Your task to perform on an android device: When is my next appointment? Image 0: 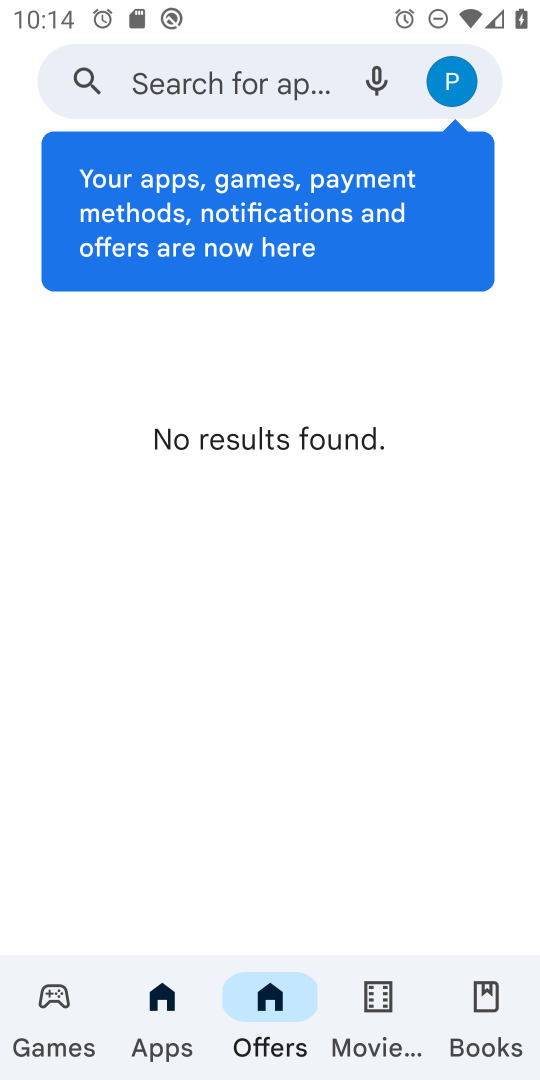
Step 0: press home button
Your task to perform on an android device: When is my next appointment? Image 1: 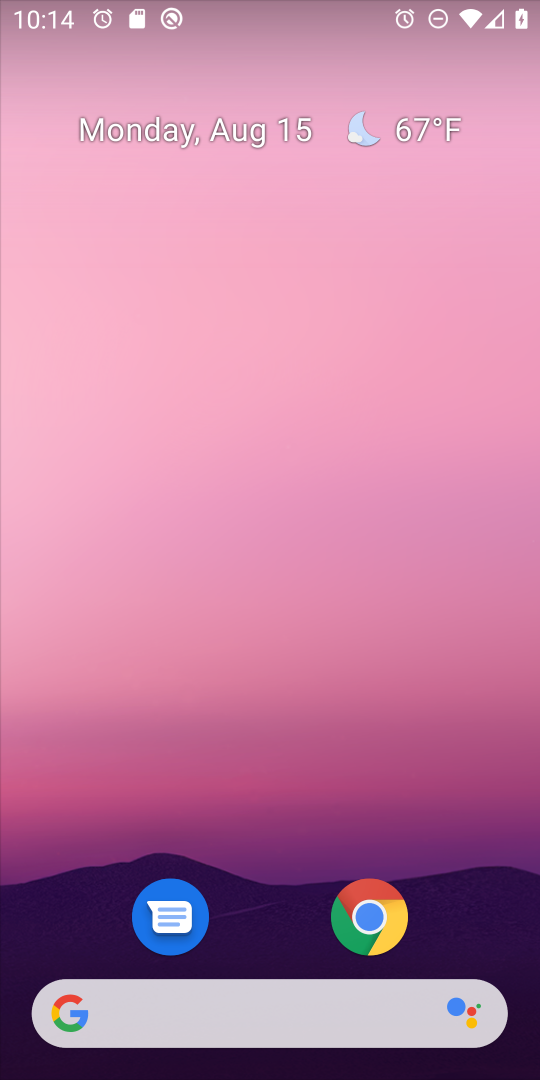
Step 1: drag from (313, 868) to (340, 1)
Your task to perform on an android device: When is my next appointment? Image 2: 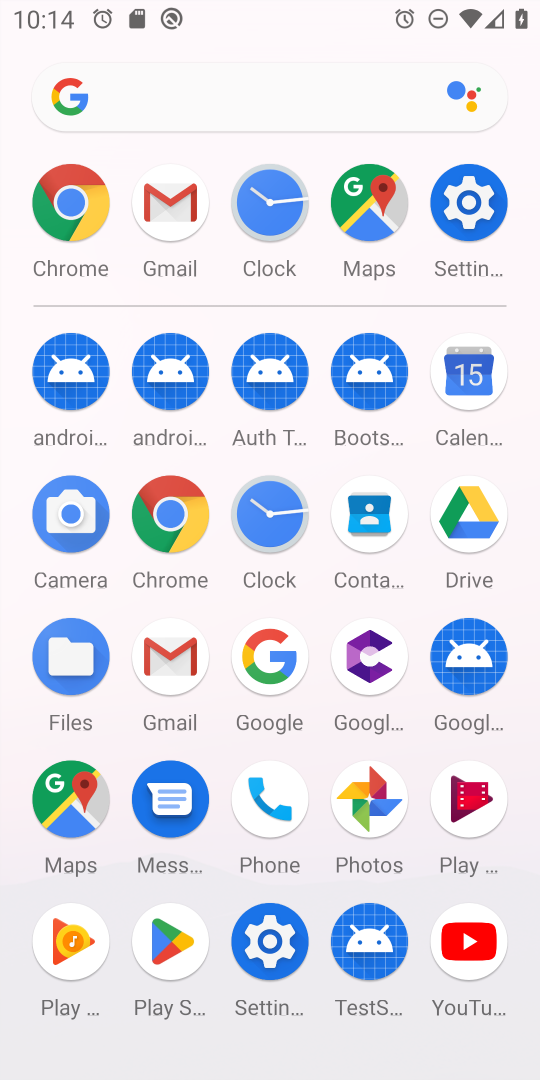
Step 2: click (475, 371)
Your task to perform on an android device: When is my next appointment? Image 3: 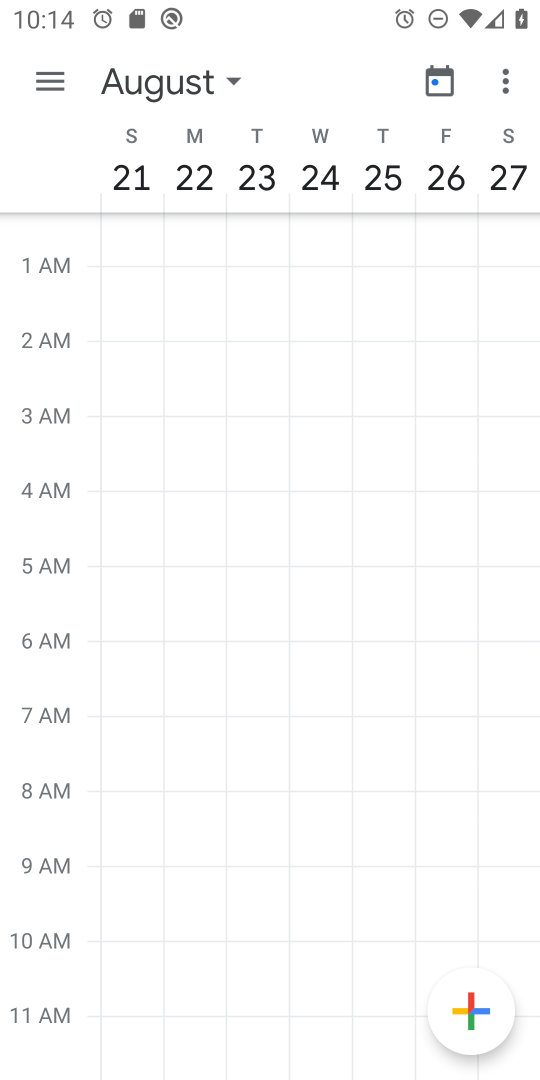
Step 3: drag from (188, 399) to (534, 455)
Your task to perform on an android device: When is my next appointment? Image 4: 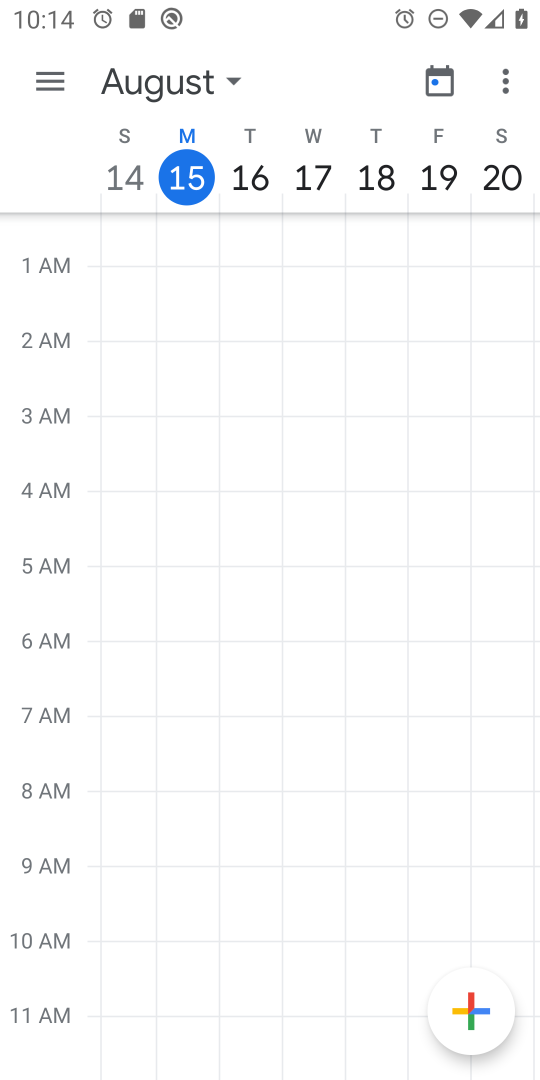
Step 4: drag from (178, 377) to (530, 441)
Your task to perform on an android device: When is my next appointment? Image 5: 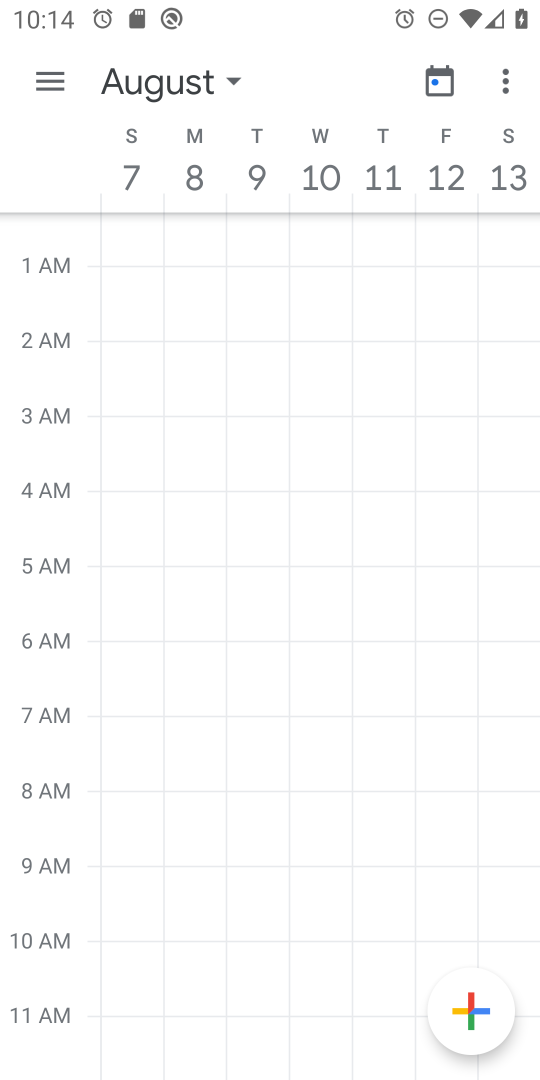
Step 5: drag from (479, 427) to (1, 357)
Your task to perform on an android device: When is my next appointment? Image 6: 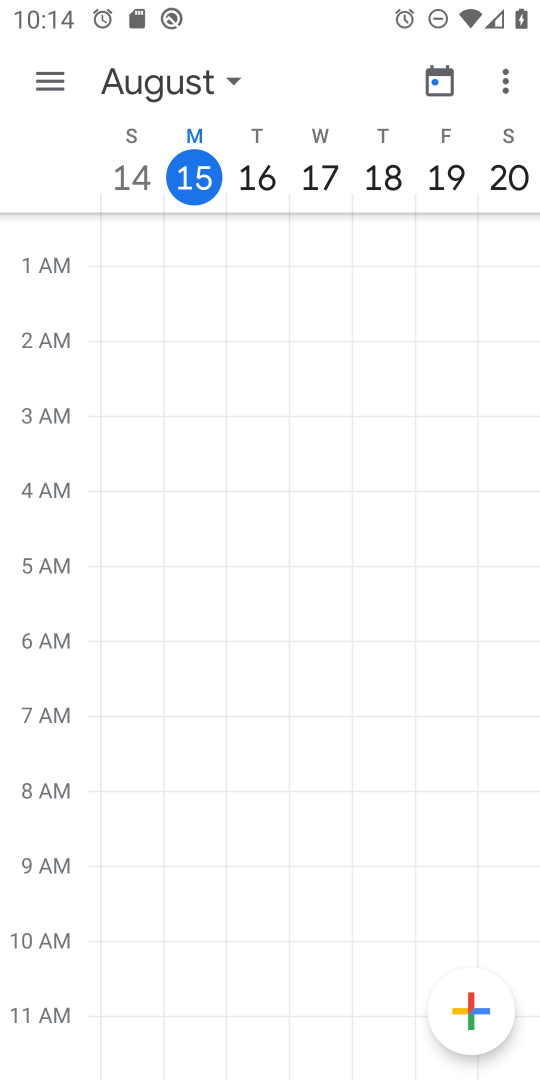
Step 6: click (198, 174)
Your task to perform on an android device: When is my next appointment? Image 7: 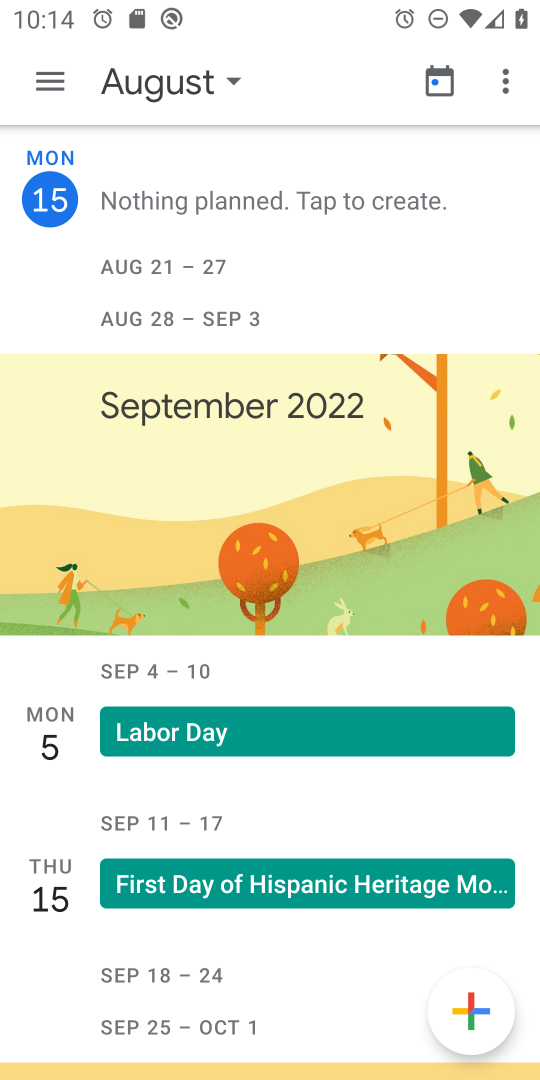
Step 7: task complete